Your task to perform on an android device: open sync settings in chrome Image 0: 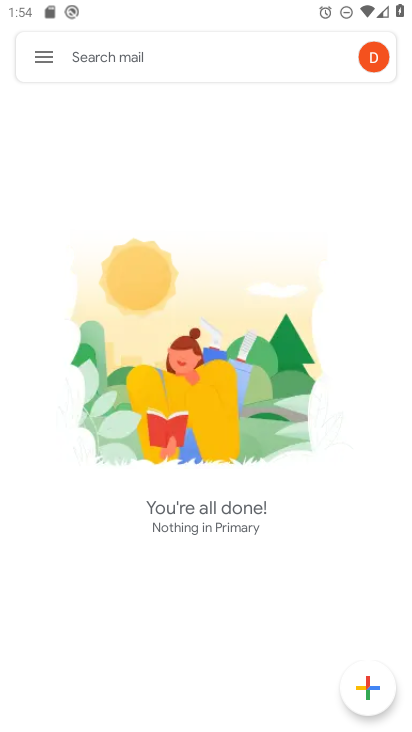
Step 0: press home button
Your task to perform on an android device: open sync settings in chrome Image 1: 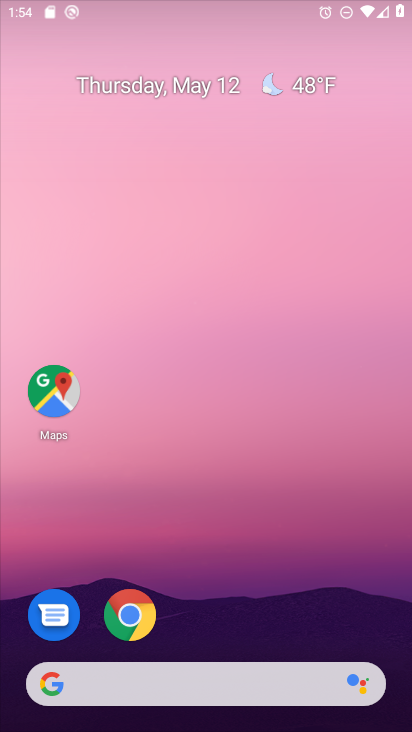
Step 1: drag from (232, 697) to (354, 9)
Your task to perform on an android device: open sync settings in chrome Image 2: 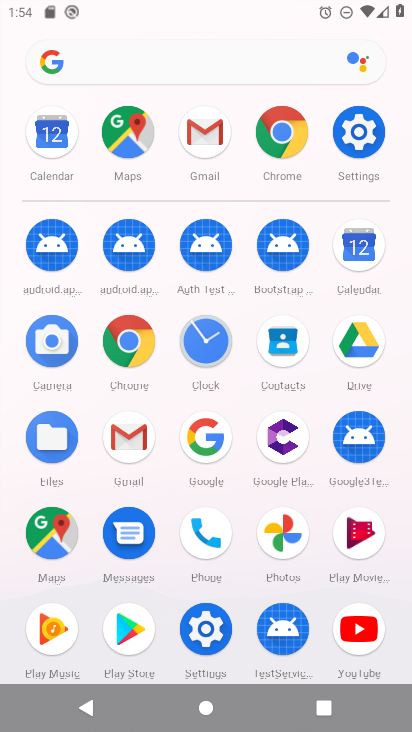
Step 2: click (143, 349)
Your task to perform on an android device: open sync settings in chrome Image 3: 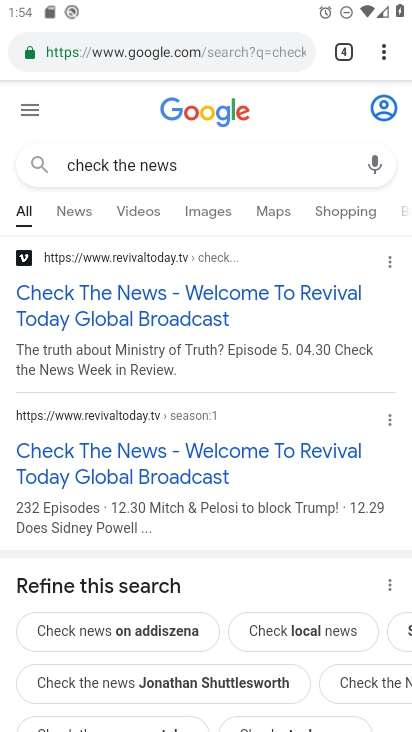
Step 3: drag from (380, 50) to (228, 586)
Your task to perform on an android device: open sync settings in chrome Image 4: 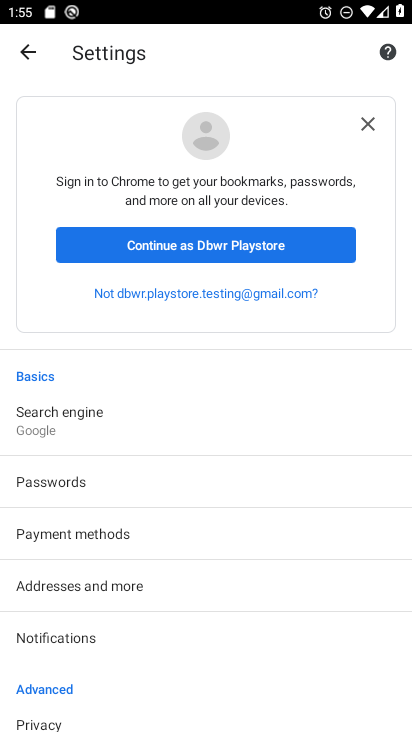
Step 4: drag from (207, 652) to (214, 234)
Your task to perform on an android device: open sync settings in chrome Image 5: 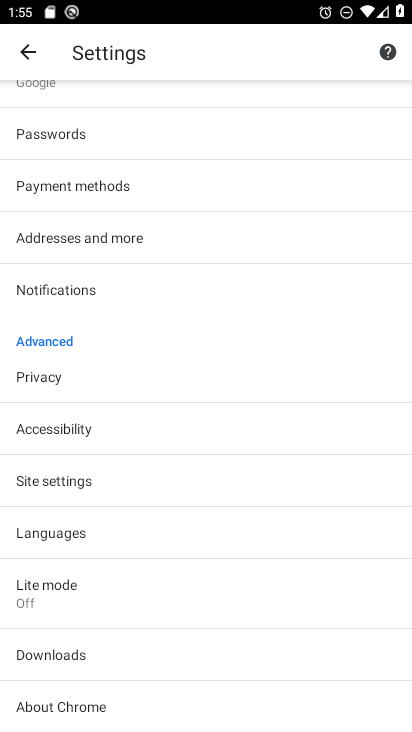
Step 5: click (118, 488)
Your task to perform on an android device: open sync settings in chrome Image 6: 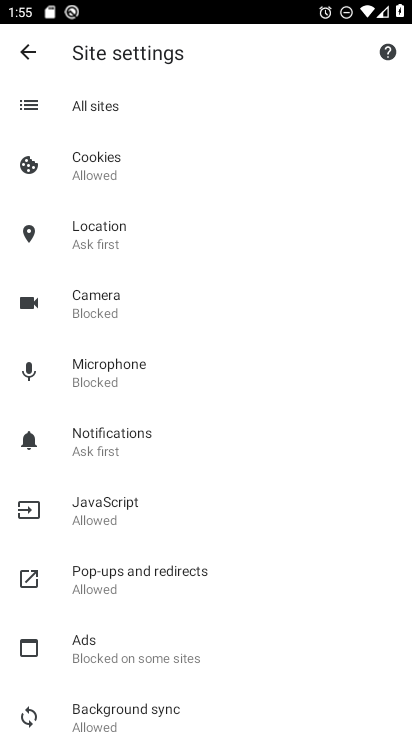
Step 6: drag from (229, 694) to (272, 516)
Your task to perform on an android device: open sync settings in chrome Image 7: 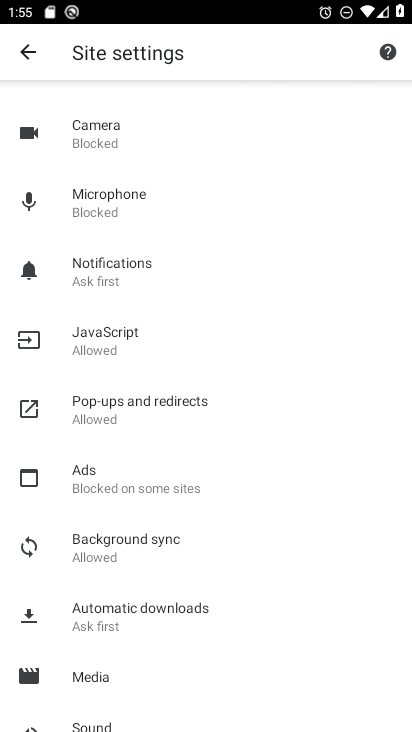
Step 7: drag from (163, 624) to (186, 399)
Your task to perform on an android device: open sync settings in chrome Image 8: 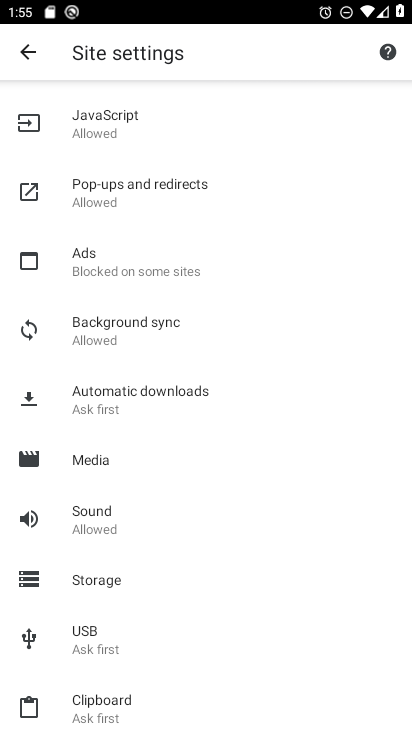
Step 8: drag from (184, 196) to (200, 443)
Your task to perform on an android device: open sync settings in chrome Image 9: 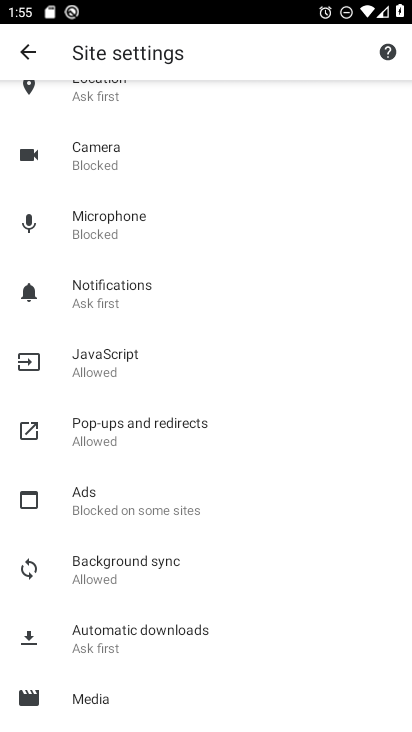
Step 9: click (181, 576)
Your task to perform on an android device: open sync settings in chrome Image 10: 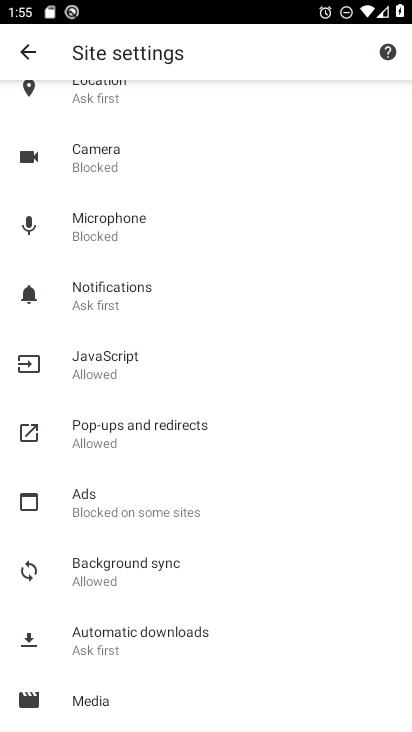
Step 10: click (187, 570)
Your task to perform on an android device: open sync settings in chrome Image 11: 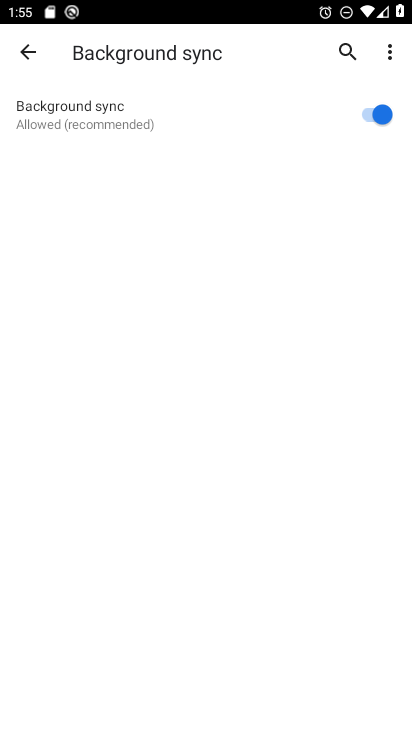
Step 11: task complete